Your task to perform on an android device: Open the web browser Image 0: 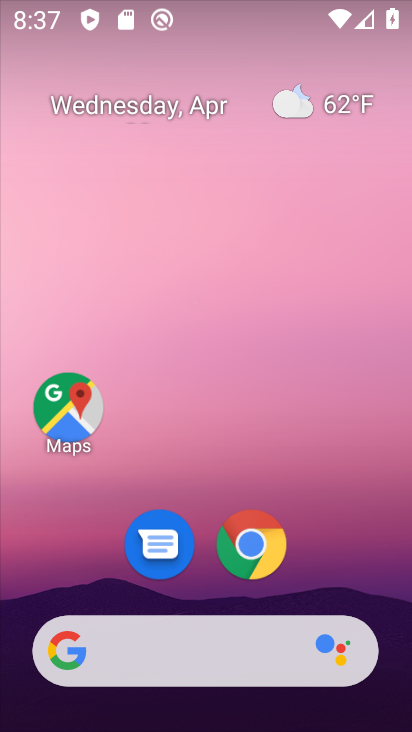
Step 0: click (246, 544)
Your task to perform on an android device: Open the web browser Image 1: 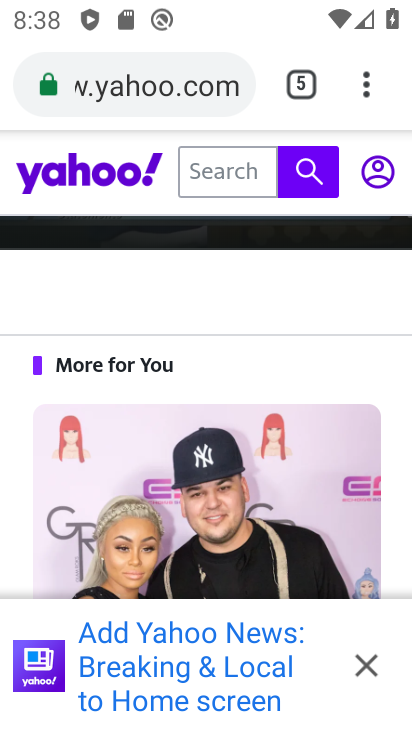
Step 1: task complete